Your task to perform on an android device: toggle translation in the chrome app Image 0: 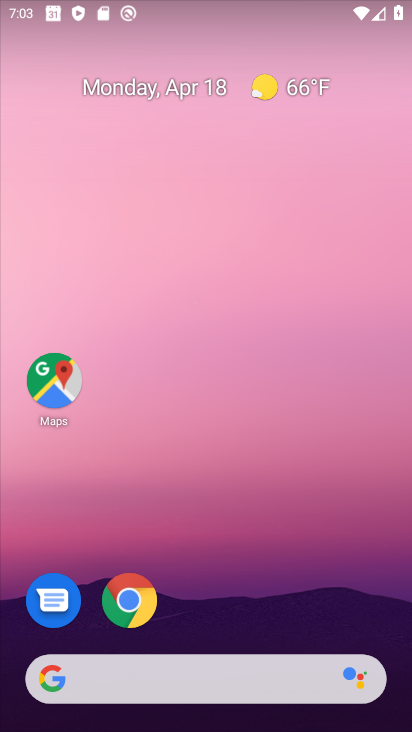
Step 0: click (132, 607)
Your task to perform on an android device: toggle translation in the chrome app Image 1: 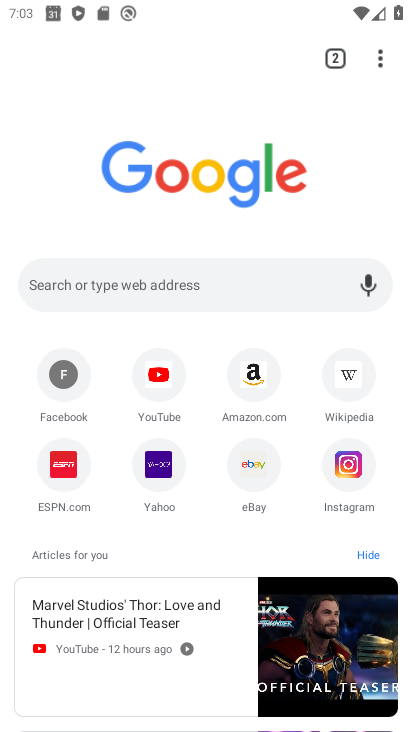
Step 1: click (381, 60)
Your task to perform on an android device: toggle translation in the chrome app Image 2: 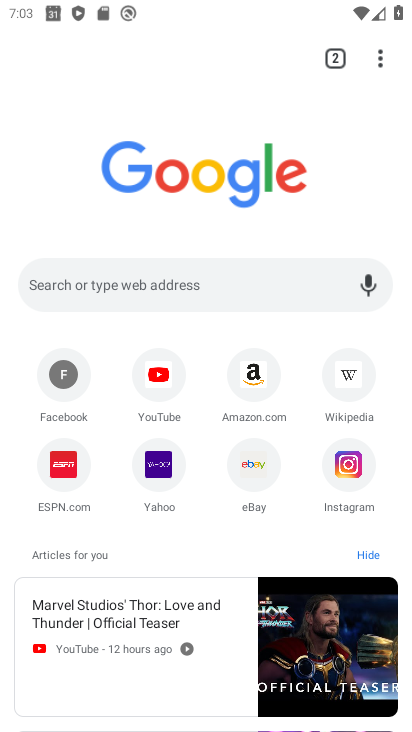
Step 2: click (381, 66)
Your task to perform on an android device: toggle translation in the chrome app Image 3: 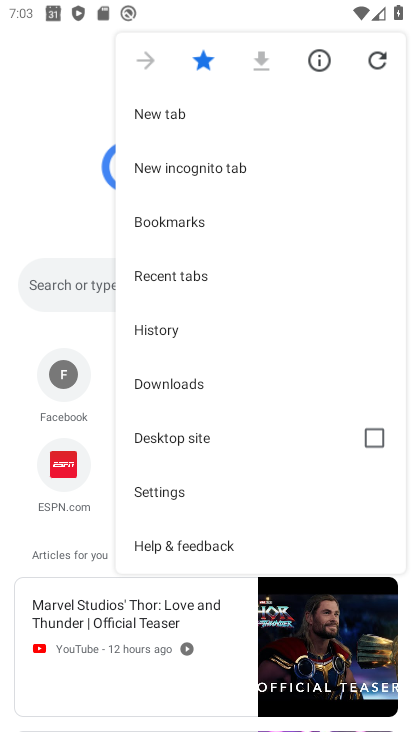
Step 3: click (160, 488)
Your task to perform on an android device: toggle translation in the chrome app Image 4: 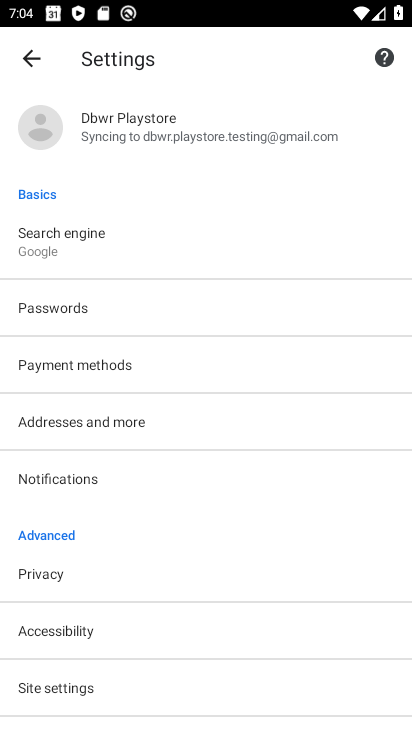
Step 4: drag from (133, 670) to (225, 174)
Your task to perform on an android device: toggle translation in the chrome app Image 5: 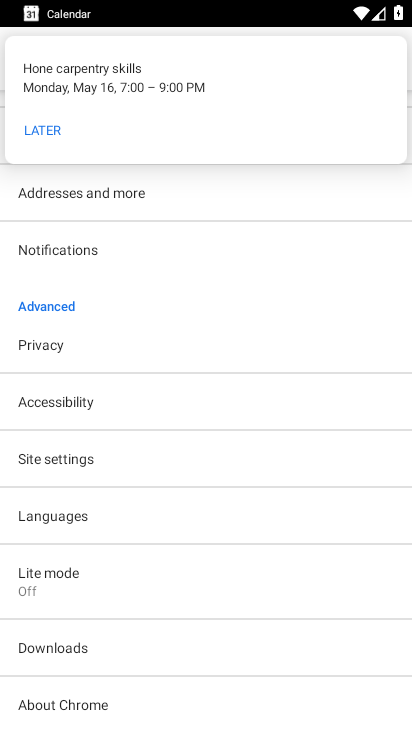
Step 5: click (58, 518)
Your task to perform on an android device: toggle translation in the chrome app Image 6: 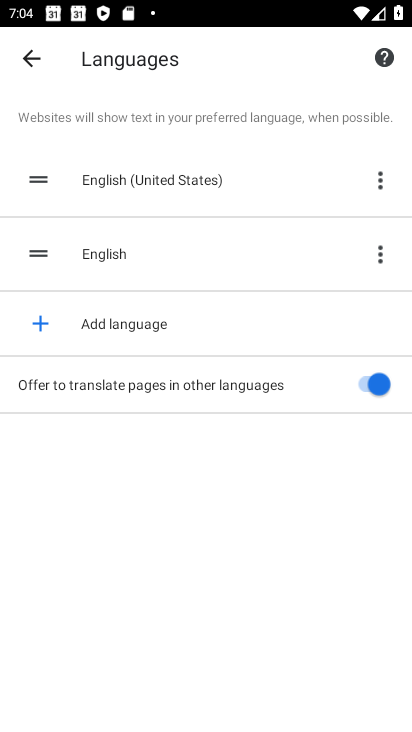
Step 6: click (377, 384)
Your task to perform on an android device: toggle translation in the chrome app Image 7: 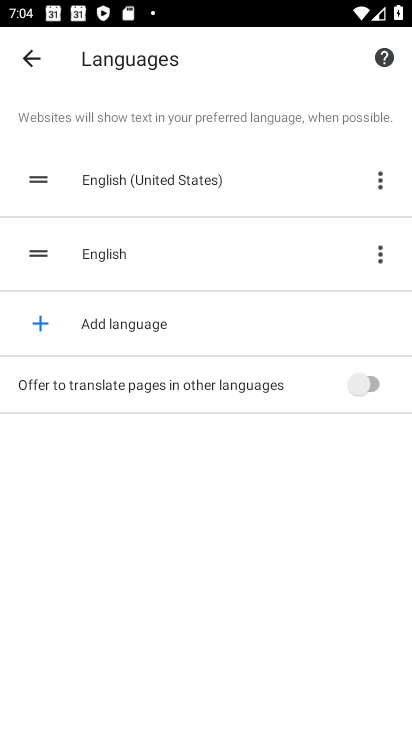
Step 7: task complete